Your task to perform on an android device: Go to privacy settings Image 0: 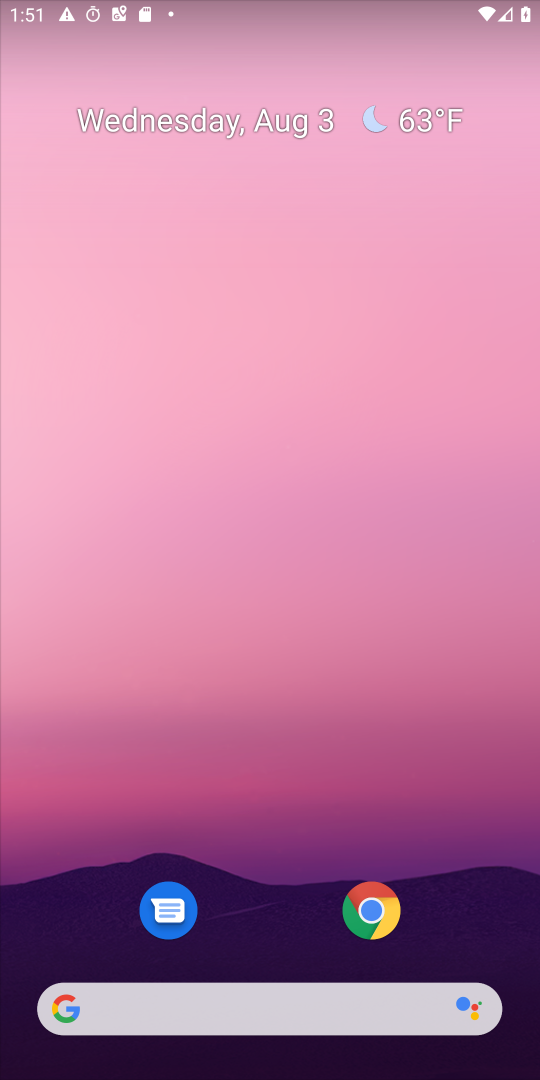
Step 0: drag from (346, 423) to (292, 61)
Your task to perform on an android device: Go to privacy settings Image 1: 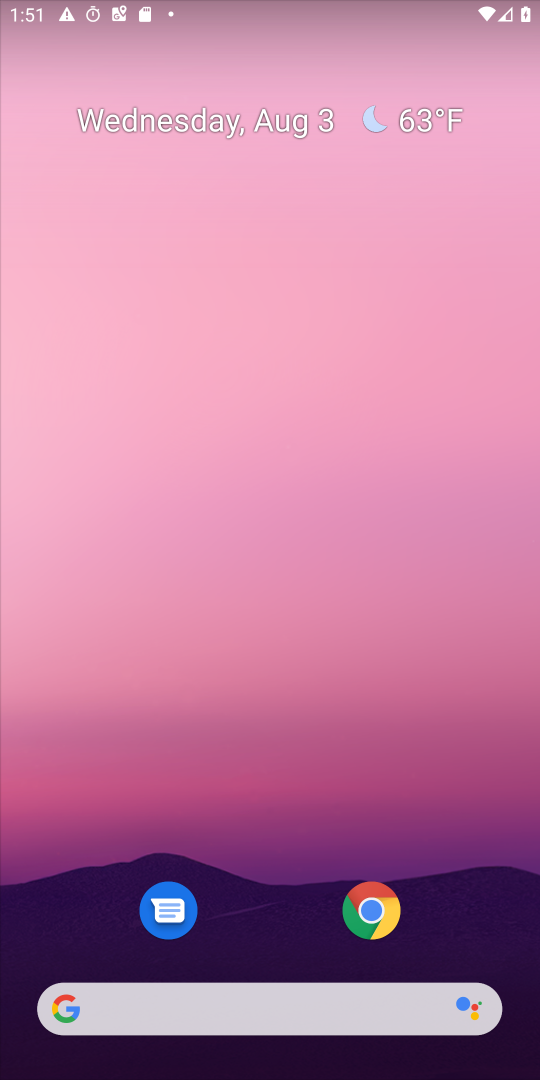
Step 1: drag from (314, 998) to (320, 0)
Your task to perform on an android device: Go to privacy settings Image 2: 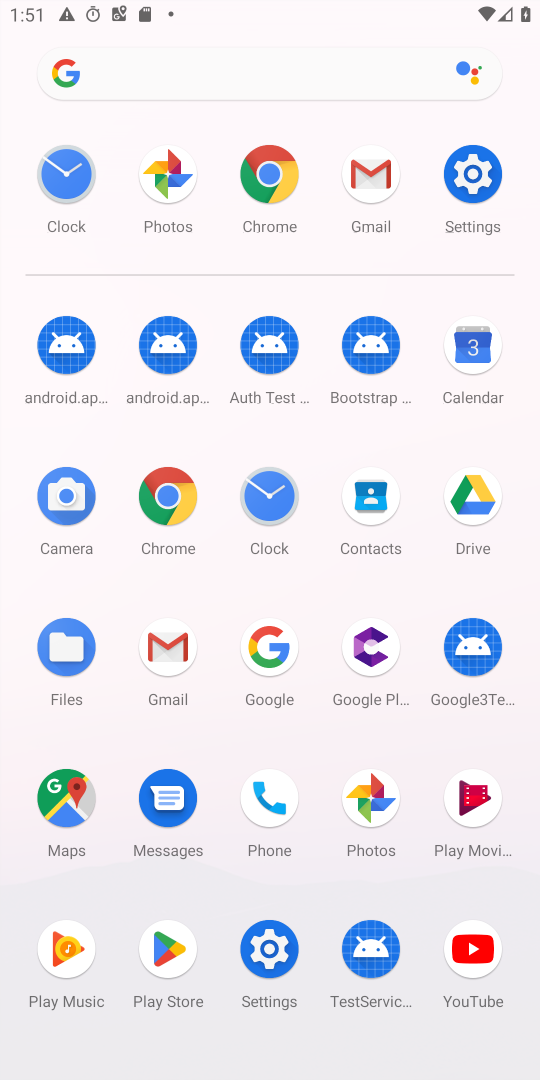
Step 2: click (472, 181)
Your task to perform on an android device: Go to privacy settings Image 3: 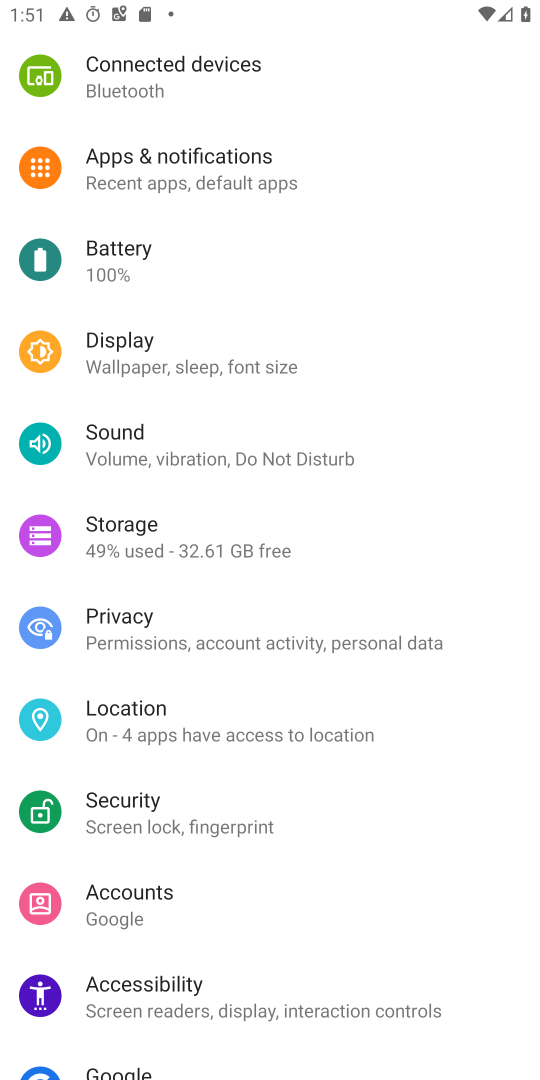
Step 3: click (156, 632)
Your task to perform on an android device: Go to privacy settings Image 4: 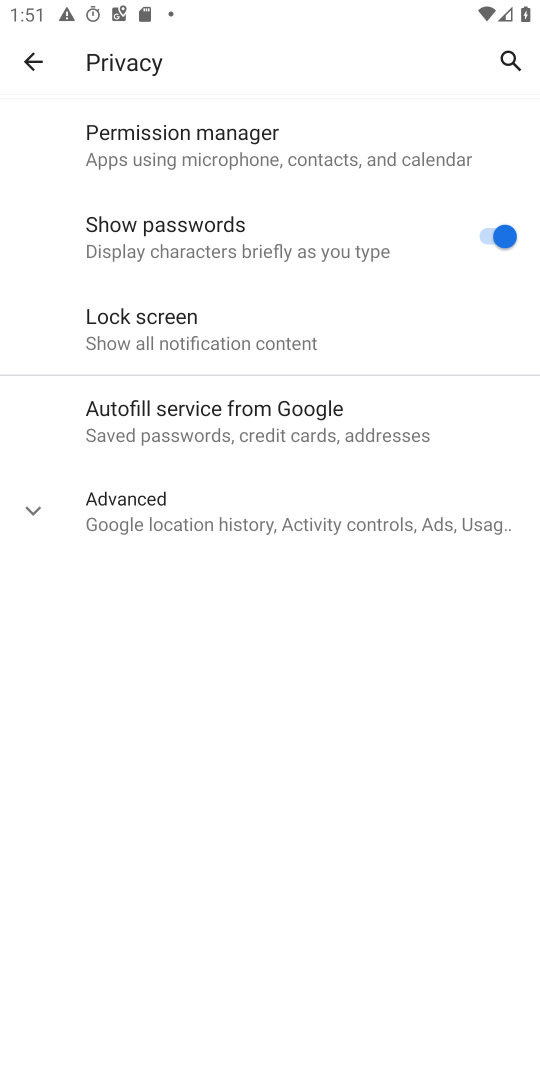
Step 4: task complete